Your task to perform on an android device: change text size in settings app Image 0: 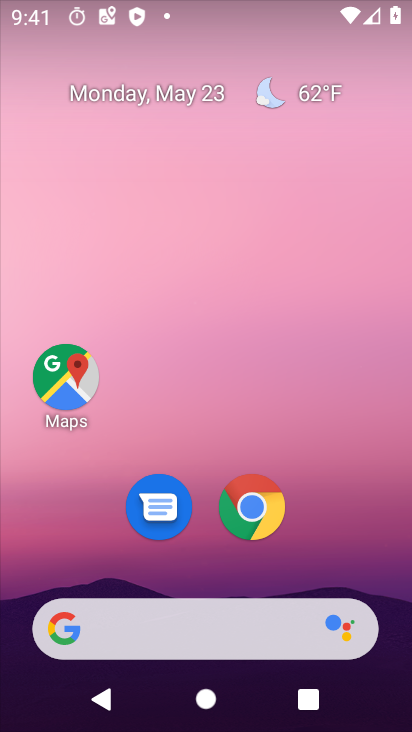
Step 0: drag from (332, 555) to (244, 70)
Your task to perform on an android device: change text size in settings app Image 1: 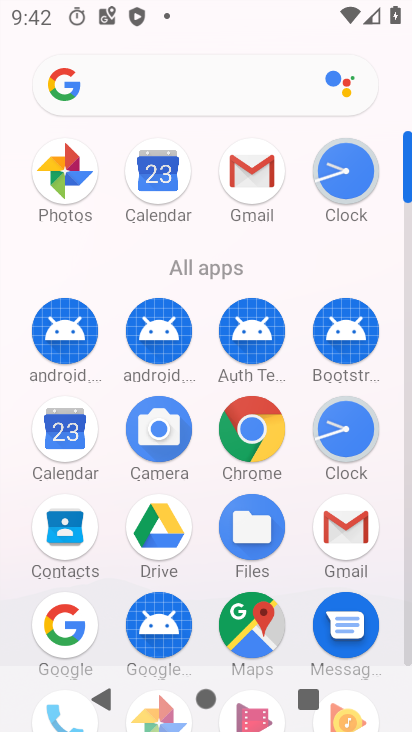
Step 1: drag from (304, 529) to (304, 300)
Your task to perform on an android device: change text size in settings app Image 2: 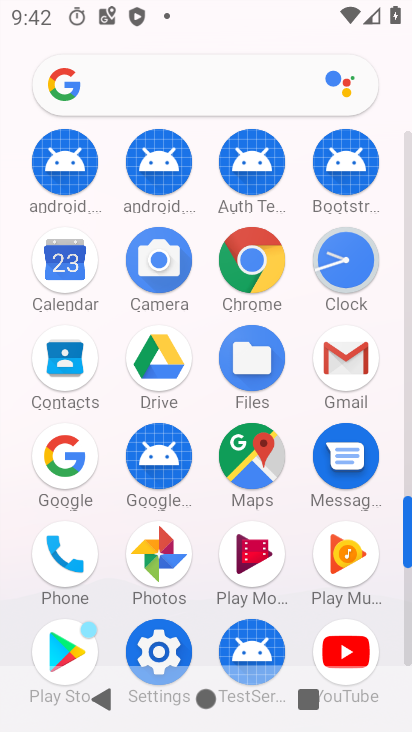
Step 2: click (160, 641)
Your task to perform on an android device: change text size in settings app Image 3: 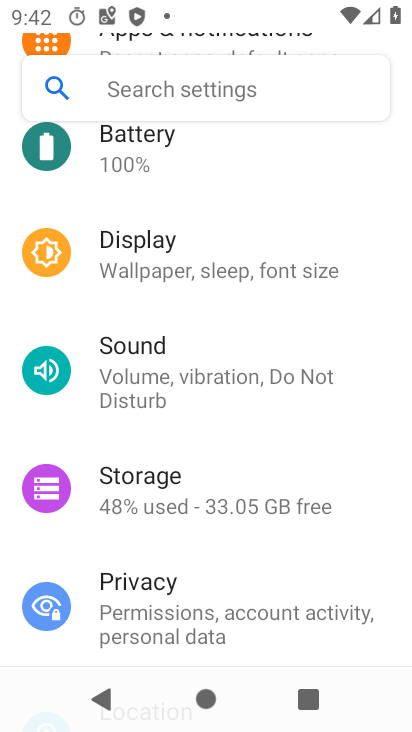
Step 3: drag from (233, 577) to (267, 468)
Your task to perform on an android device: change text size in settings app Image 4: 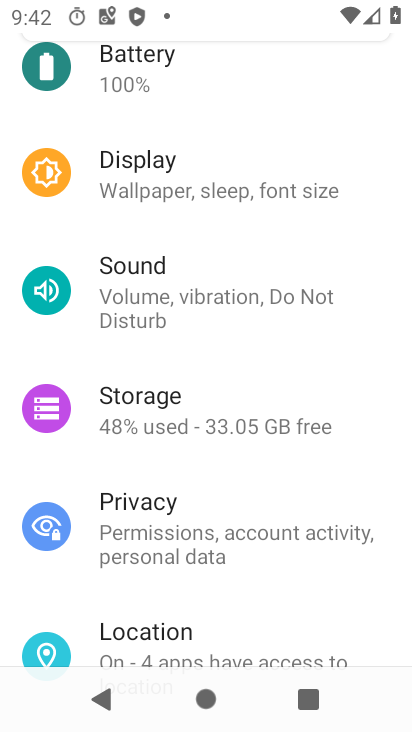
Step 4: drag from (220, 604) to (260, 487)
Your task to perform on an android device: change text size in settings app Image 5: 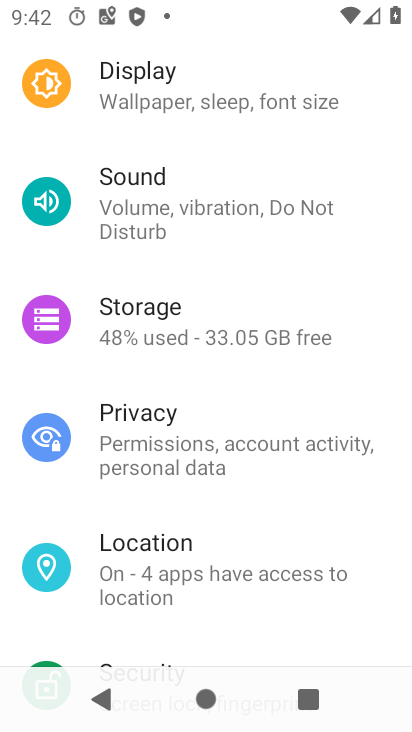
Step 5: drag from (198, 594) to (235, 461)
Your task to perform on an android device: change text size in settings app Image 6: 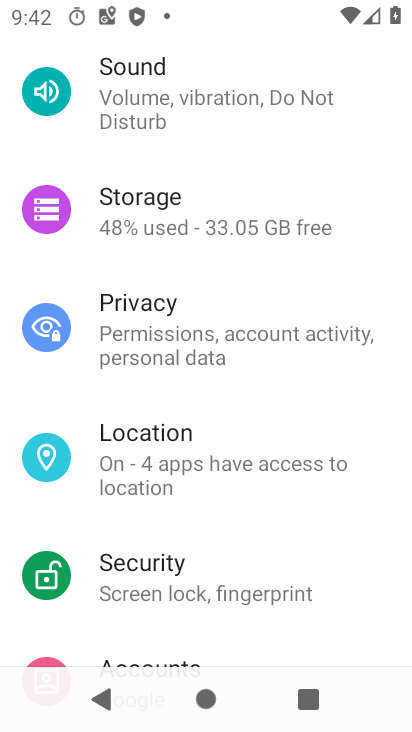
Step 6: drag from (214, 559) to (272, 436)
Your task to perform on an android device: change text size in settings app Image 7: 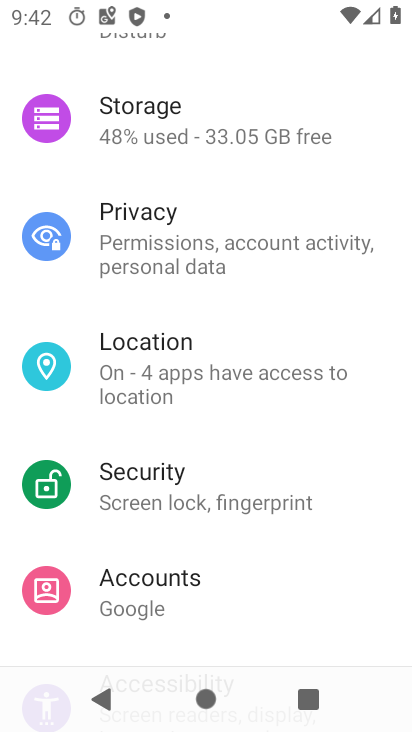
Step 7: drag from (141, 542) to (179, 377)
Your task to perform on an android device: change text size in settings app Image 8: 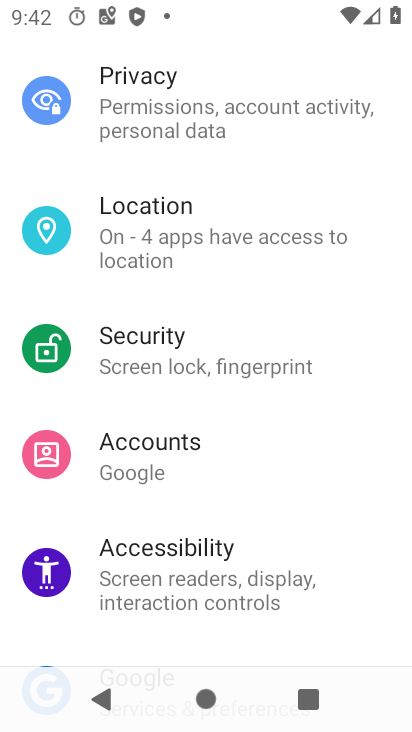
Step 8: drag from (172, 495) to (221, 346)
Your task to perform on an android device: change text size in settings app Image 9: 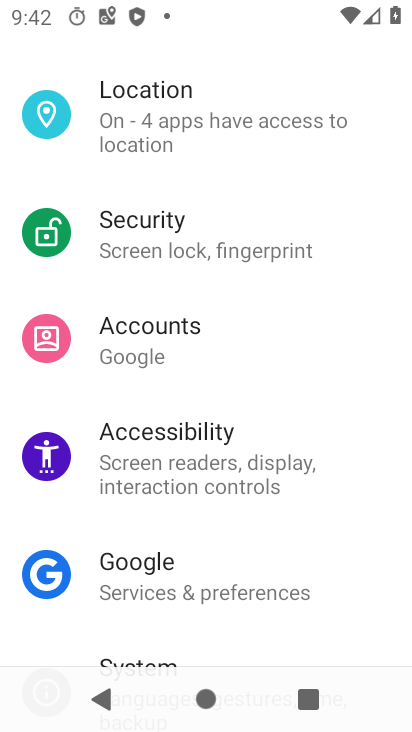
Step 9: click (174, 430)
Your task to perform on an android device: change text size in settings app Image 10: 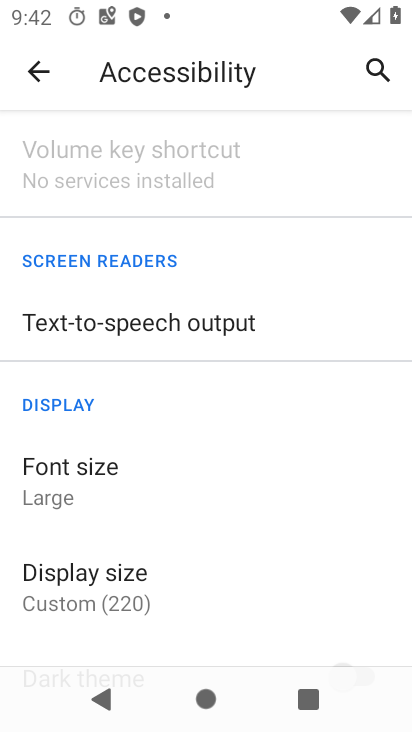
Step 10: click (124, 476)
Your task to perform on an android device: change text size in settings app Image 11: 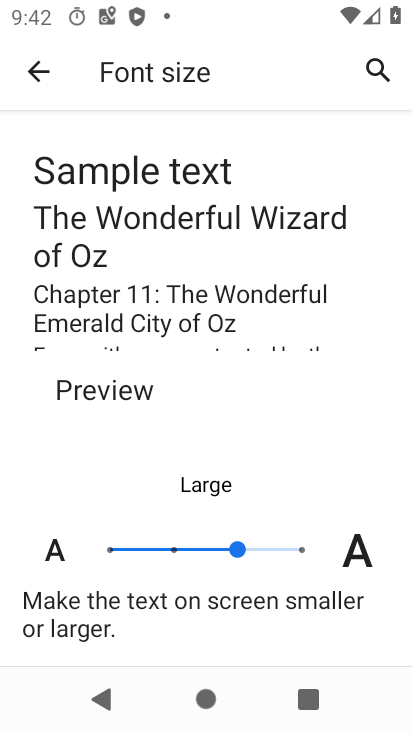
Step 11: click (173, 549)
Your task to perform on an android device: change text size in settings app Image 12: 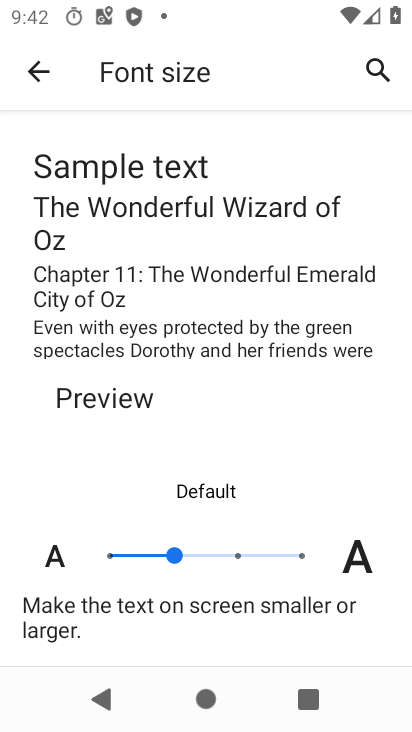
Step 12: task complete